Your task to perform on an android device: turn on improve location accuracy Image 0: 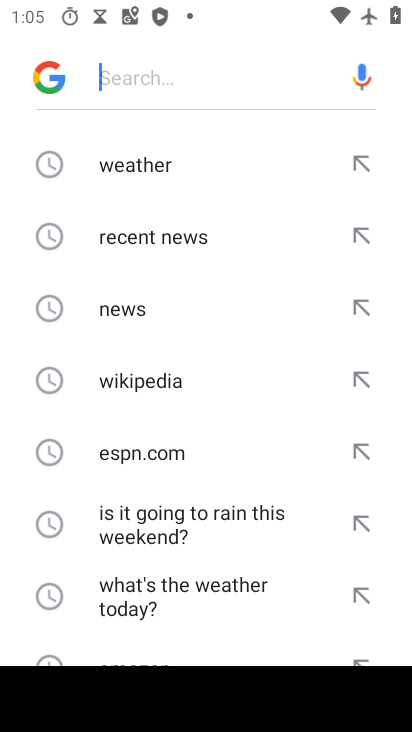
Step 0: press home button
Your task to perform on an android device: turn on improve location accuracy Image 1: 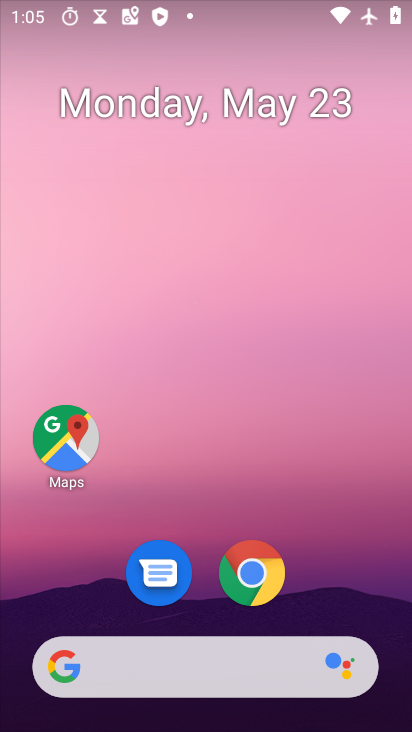
Step 1: drag from (163, 688) to (248, 166)
Your task to perform on an android device: turn on improve location accuracy Image 2: 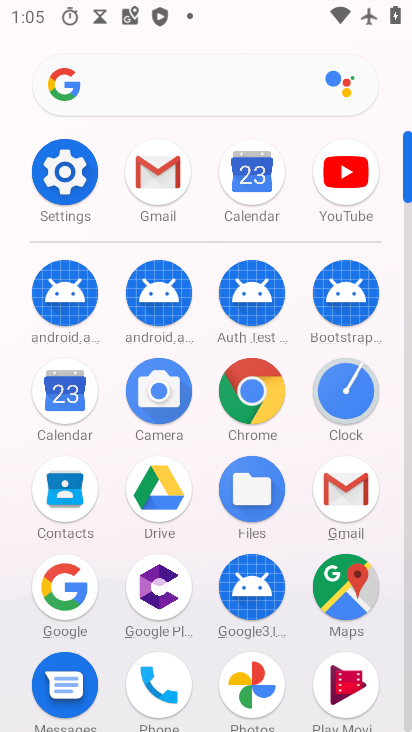
Step 2: click (66, 182)
Your task to perform on an android device: turn on improve location accuracy Image 3: 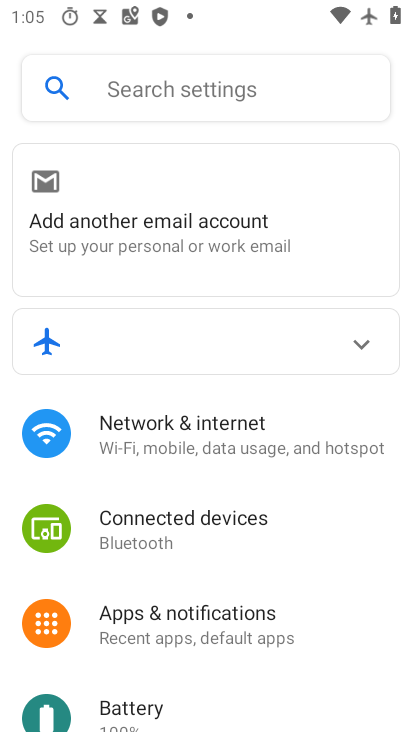
Step 3: drag from (230, 671) to (315, 198)
Your task to perform on an android device: turn on improve location accuracy Image 4: 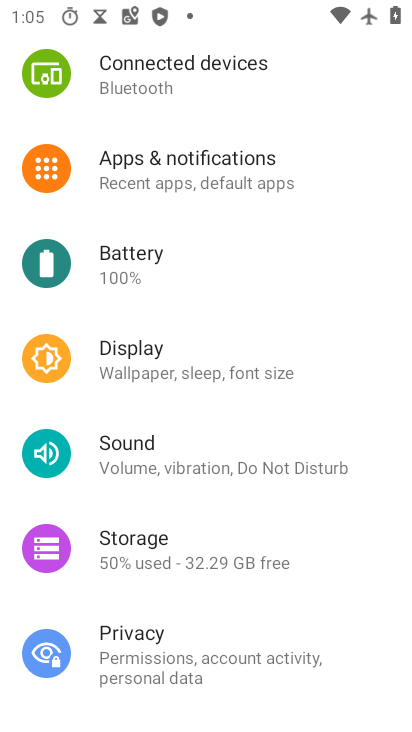
Step 4: drag from (282, 262) to (246, 585)
Your task to perform on an android device: turn on improve location accuracy Image 5: 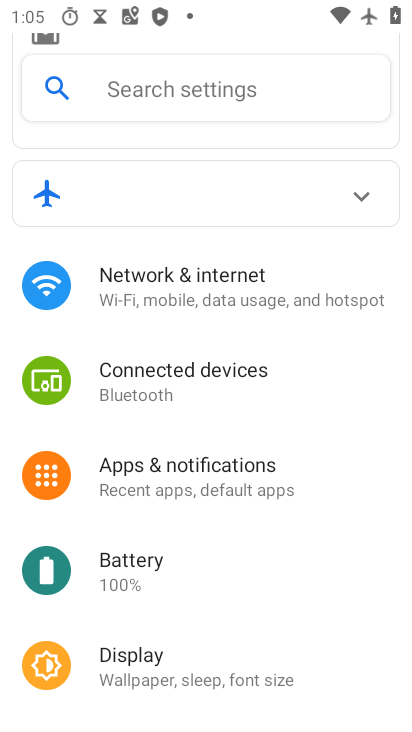
Step 5: drag from (260, 588) to (316, 133)
Your task to perform on an android device: turn on improve location accuracy Image 6: 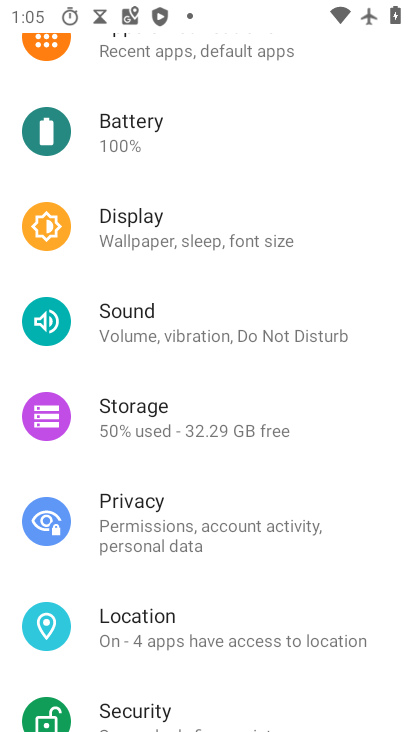
Step 6: click (172, 639)
Your task to perform on an android device: turn on improve location accuracy Image 7: 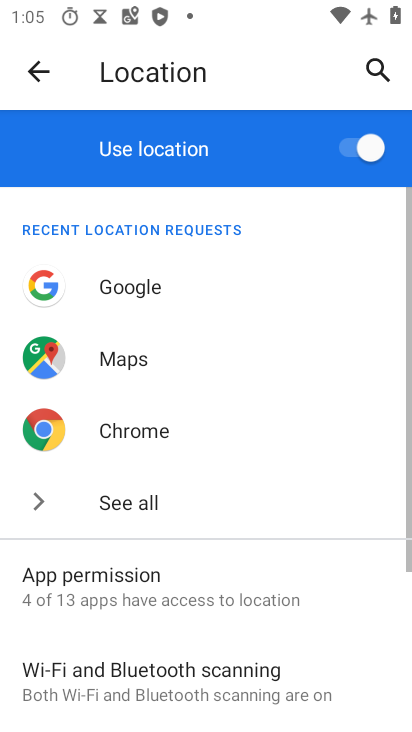
Step 7: drag from (209, 628) to (324, 131)
Your task to perform on an android device: turn on improve location accuracy Image 8: 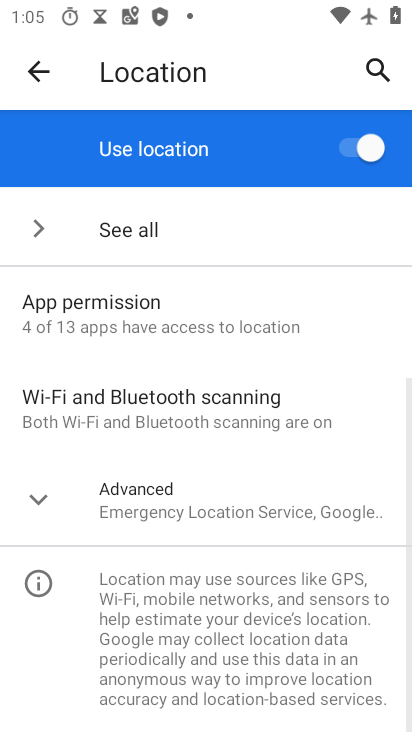
Step 8: click (165, 504)
Your task to perform on an android device: turn on improve location accuracy Image 9: 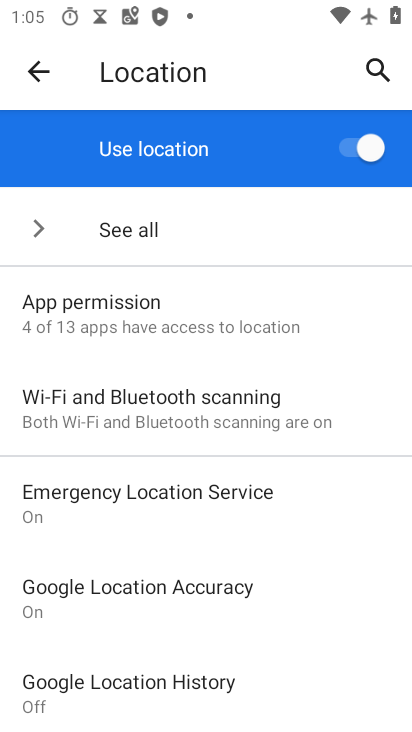
Step 9: click (182, 600)
Your task to perform on an android device: turn on improve location accuracy Image 10: 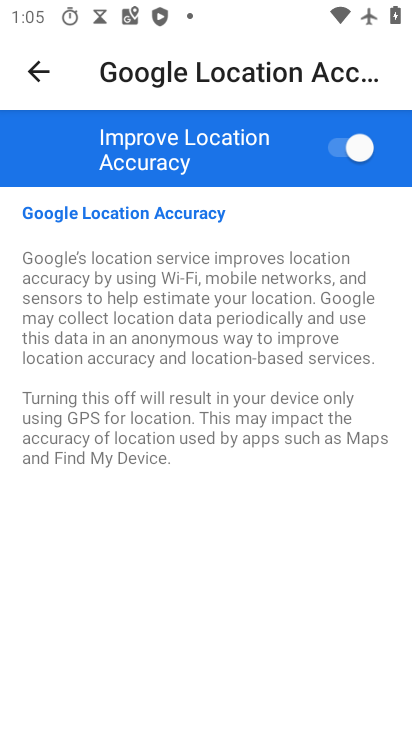
Step 10: task complete